Your task to perform on an android device: Search for vegetarian restaurants on Maps Image 0: 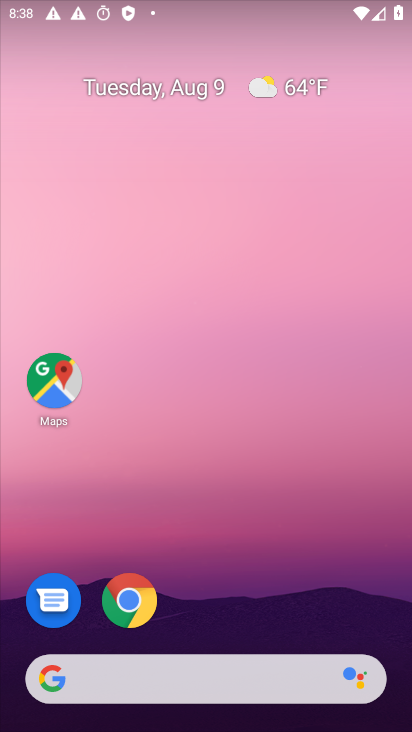
Step 0: press home button
Your task to perform on an android device: Search for vegetarian restaurants on Maps Image 1: 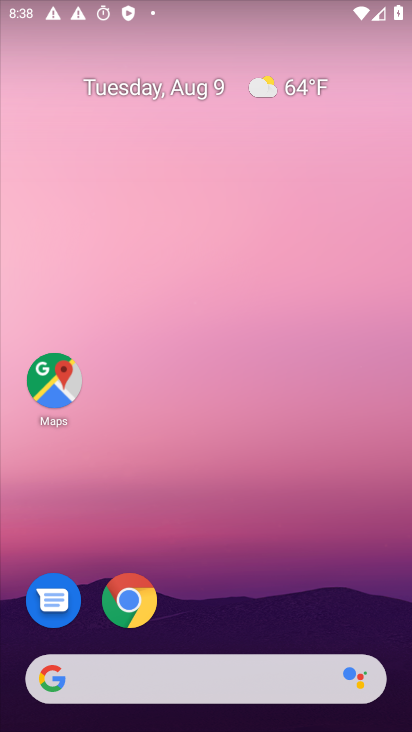
Step 1: click (60, 383)
Your task to perform on an android device: Search for vegetarian restaurants on Maps Image 2: 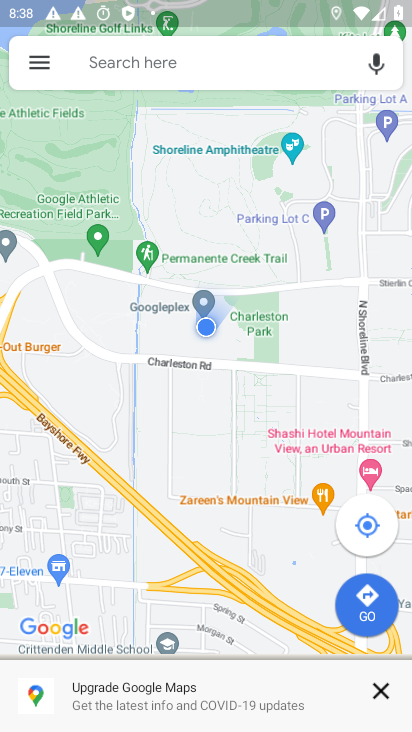
Step 2: click (161, 65)
Your task to perform on an android device: Search for vegetarian restaurants on Maps Image 3: 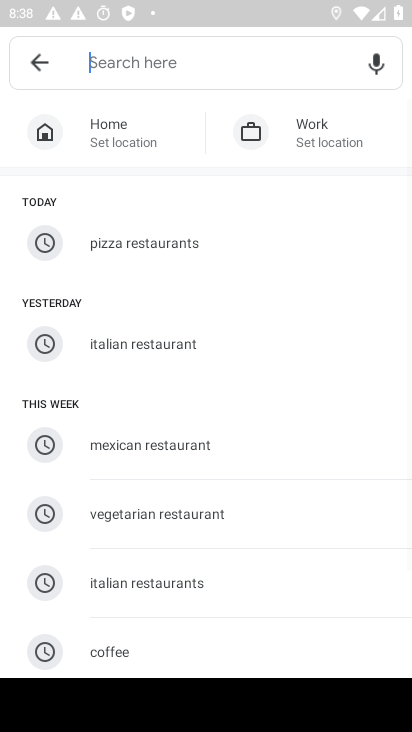
Step 3: click (159, 523)
Your task to perform on an android device: Search for vegetarian restaurants on Maps Image 4: 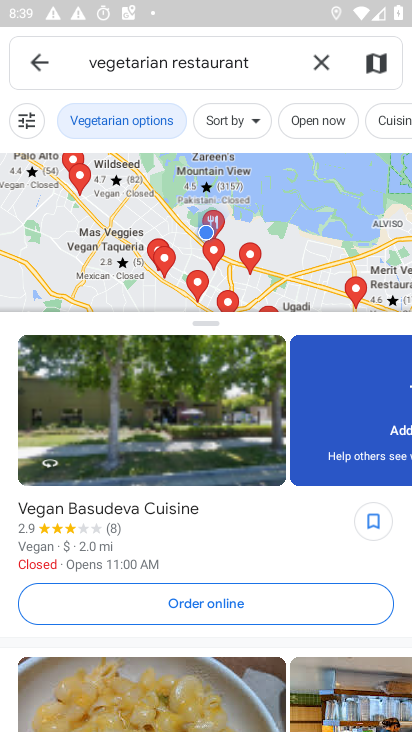
Step 4: task complete